Your task to perform on an android device: set the timer Image 0: 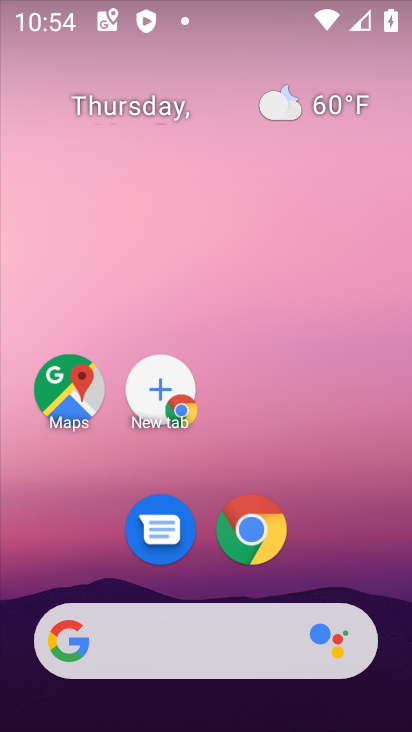
Step 0: drag from (308, 582) to (156, 118)
Your task to perform on an android device: set the timer Image 1: 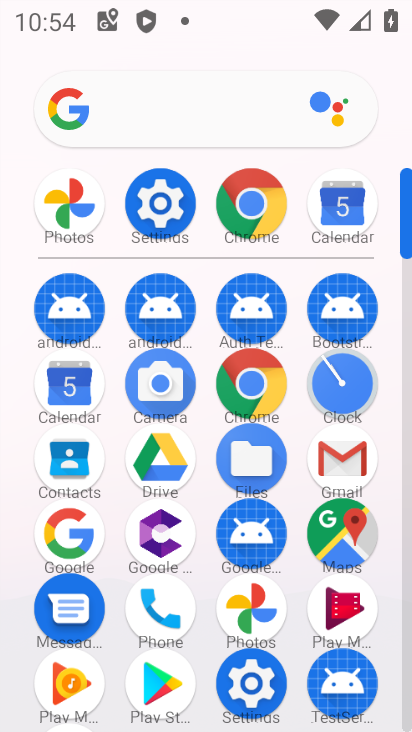
Step 1: click (331, 386)
Your task to perform on an android device: set the timer Image 2: 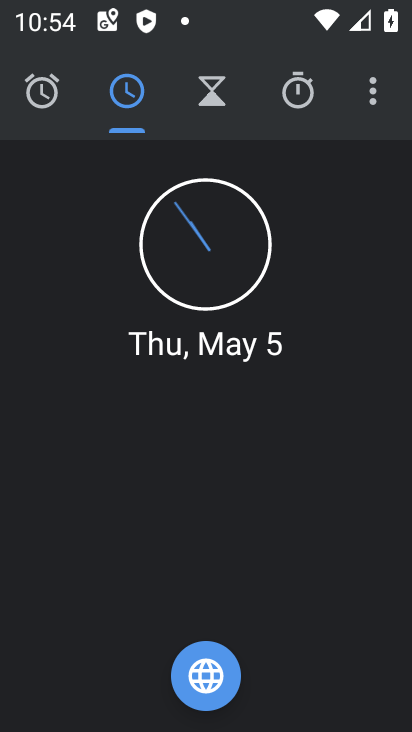
Step 2: click (366, 91)
Your task to perform on an android device: set the timer Image 3: 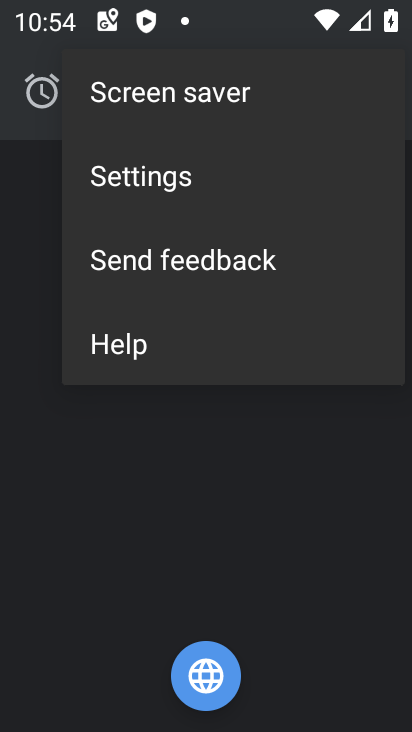
Step 3: click (162, 172)
Your task to perform on an android device: set the timer Image 4: 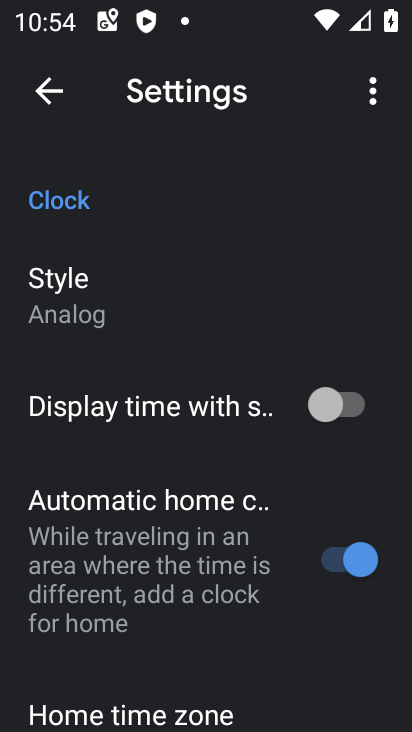
Step 4: drag from (236, 597) to (183, 227)
Your task to perform on an android device: set the timer Image 5: 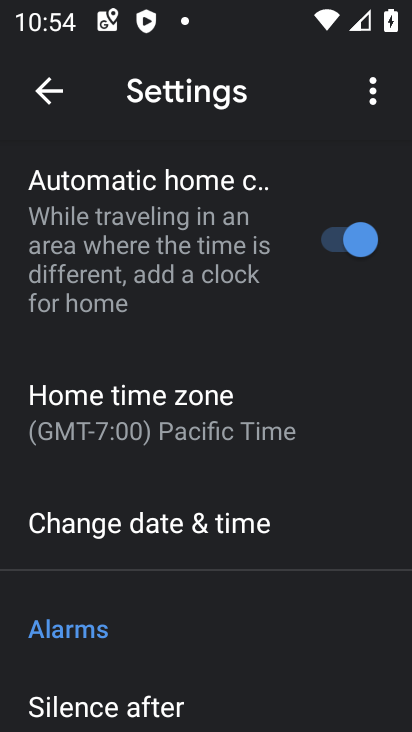
Step 5: click (45, 86)
Your task to perform on an android device: set the timer Image 6: 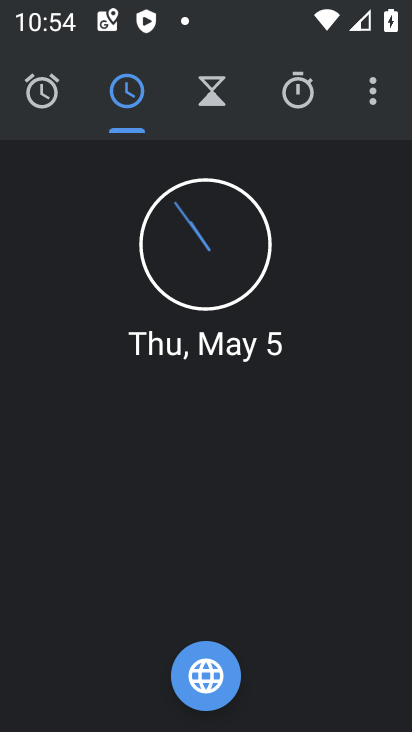
Step 6: click (43, 102)
Your task to perform on an android device: set the timer Image 7: 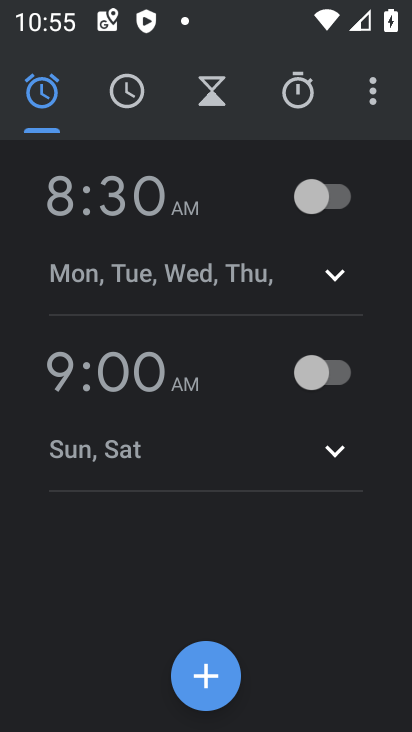
Step 7: click (115, 105)
Your task to perform on an android device: set the timer Image 8: 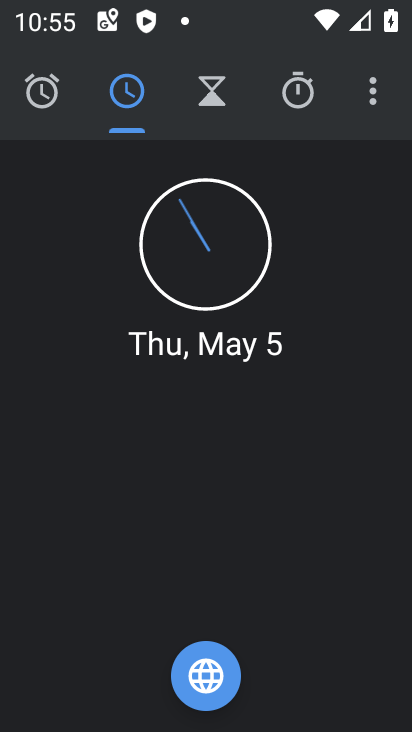
Step 8: click (206, 100)
Your task to perform on an android device: set the timer Image 9: 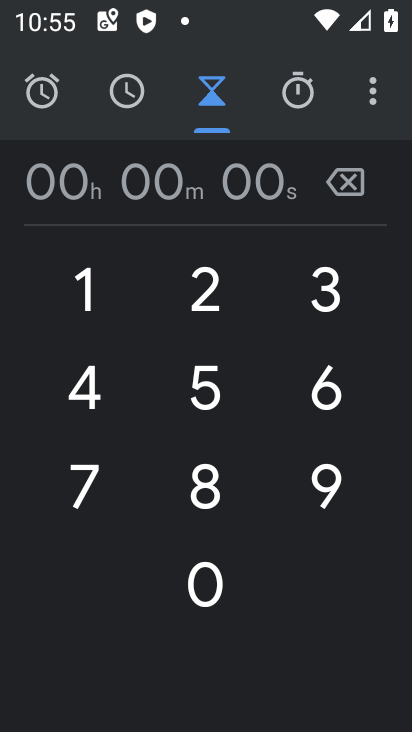
Step 9: click (288, 100)
Your task to perform on an android device: set the timer Image 10: 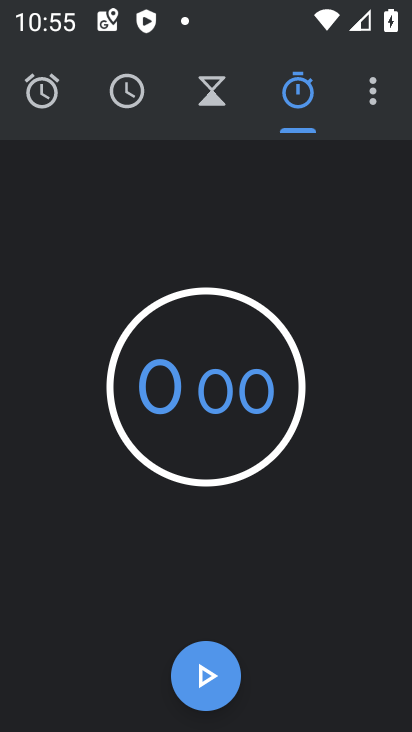
Step 10: click (210, 86)
Your task to perform on an android device: set the timer Image 11: 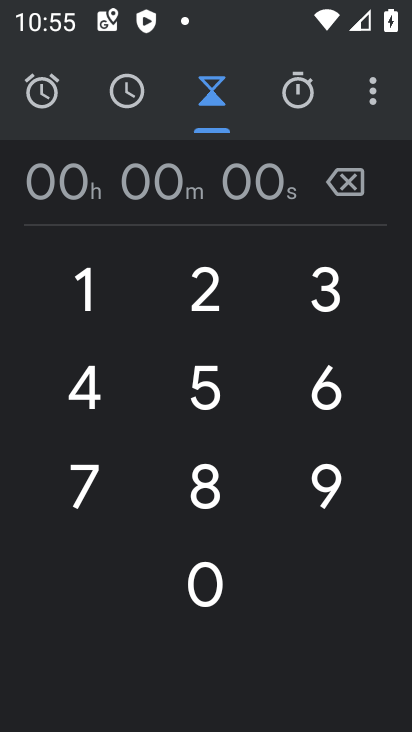
Step 11: click (192, 105)
Your task to perform on an android device: set the timer Image 12: 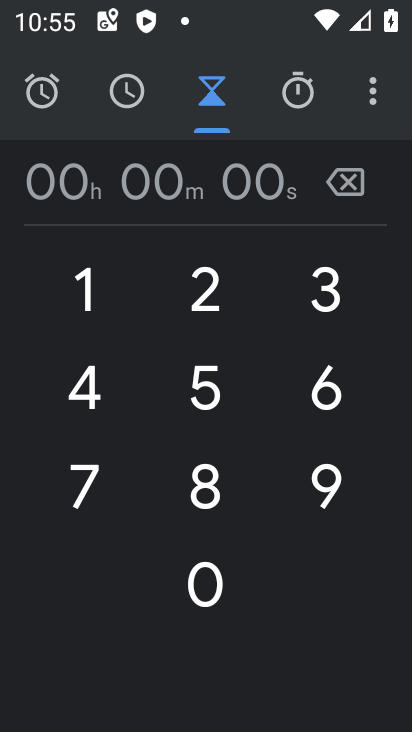
Step 12: click (193, 604)
Your task to perform on an android device: set the timer Image 13: 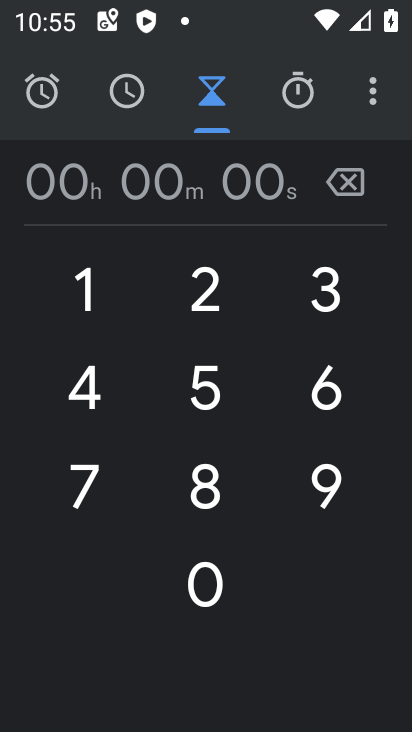
Step 13: click (200, 582)
Your task to perform on an android device: set the timer Image 14: 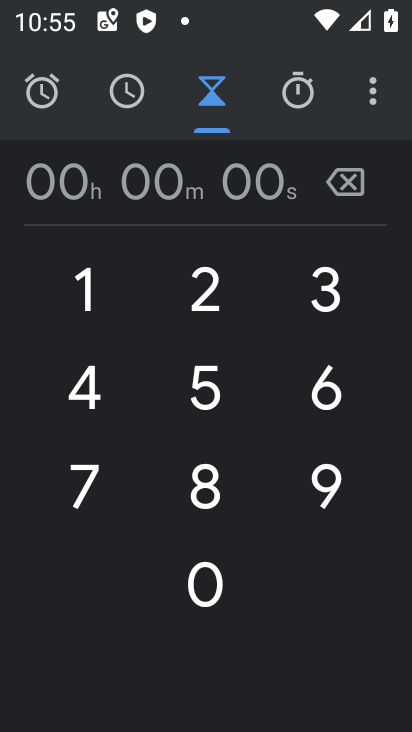
Step 14: click (295, 93)
Your task to perform on an android device: set the timer Image 15: 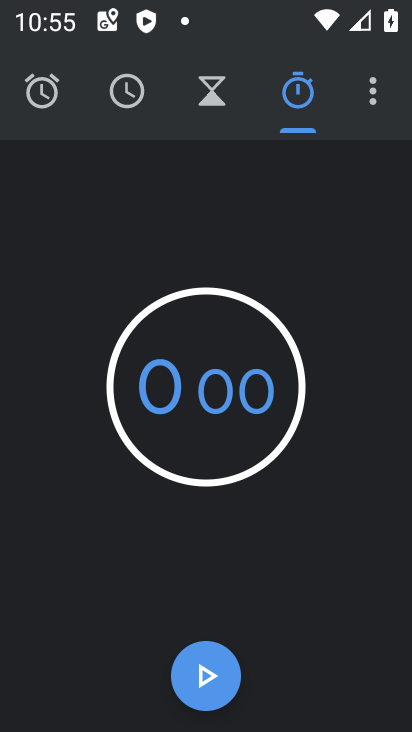
Step 15: click (203, 676)
Your task to perform on an android device: set the timer Image 16: 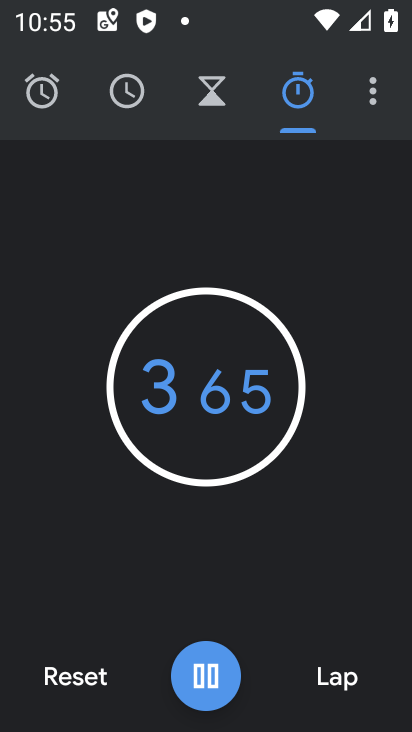
Step 16: click (216, 672)
Your task to perform on an android device: set the timer Image 17: 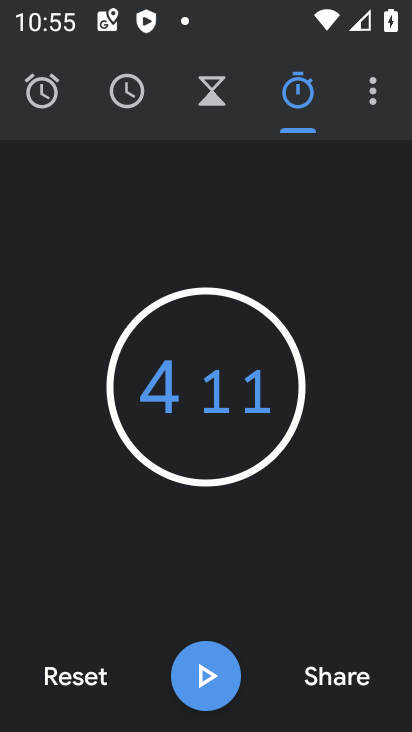
Step 17: click (207, 672)
Your task to perform on an android device: set the timer Image 18: 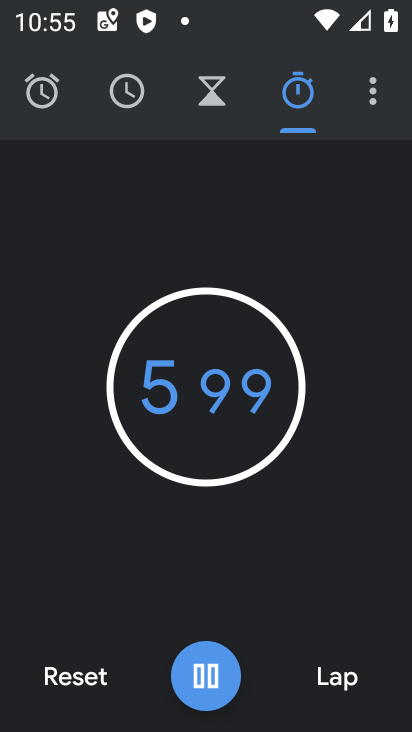
Step 18: task complete